Your task to perform on an android device: Add usb-a to usb-b to the cart on newegg, then select checkout. Image 0: 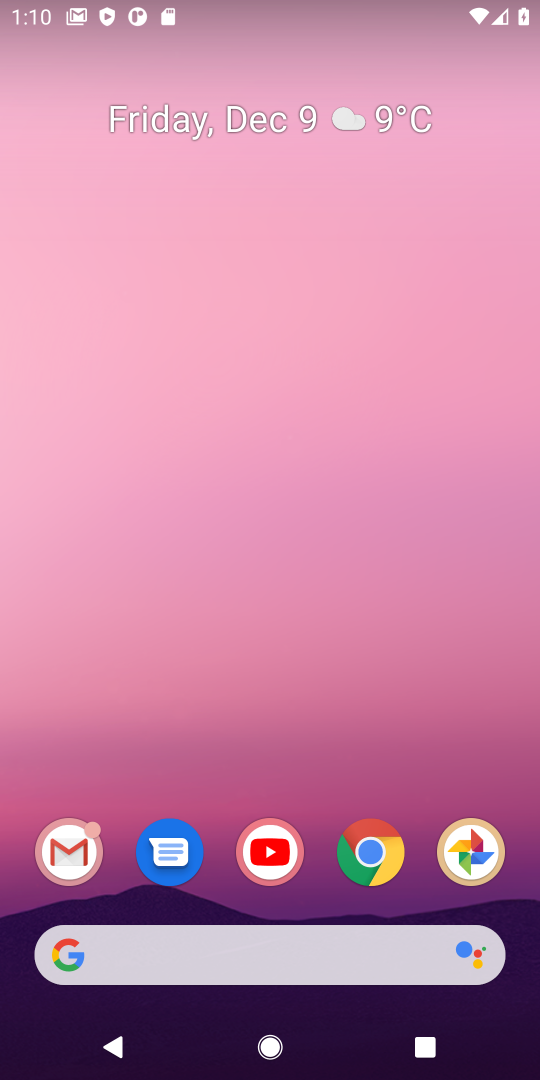
Step 0: click (364, 856)
Your task to perform on an android device: Add usb-a to usb-b to the cart on newegg, then select checkout. Image 1: 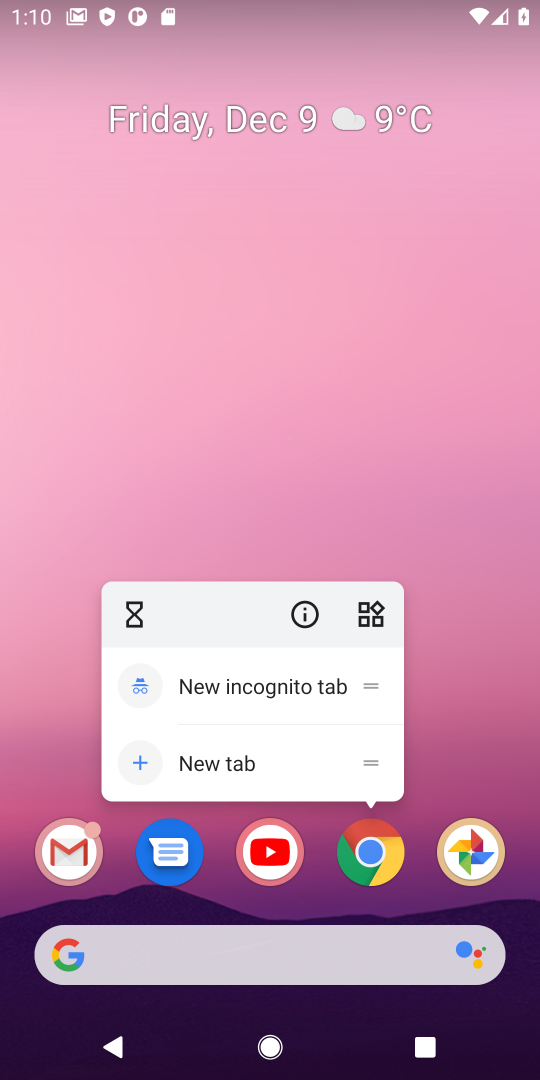
Step 1: click (361, 870)
Your task to perform on an android device: Add usb-a to usb-b to the cart on newegg, then select checkout. Image 2: 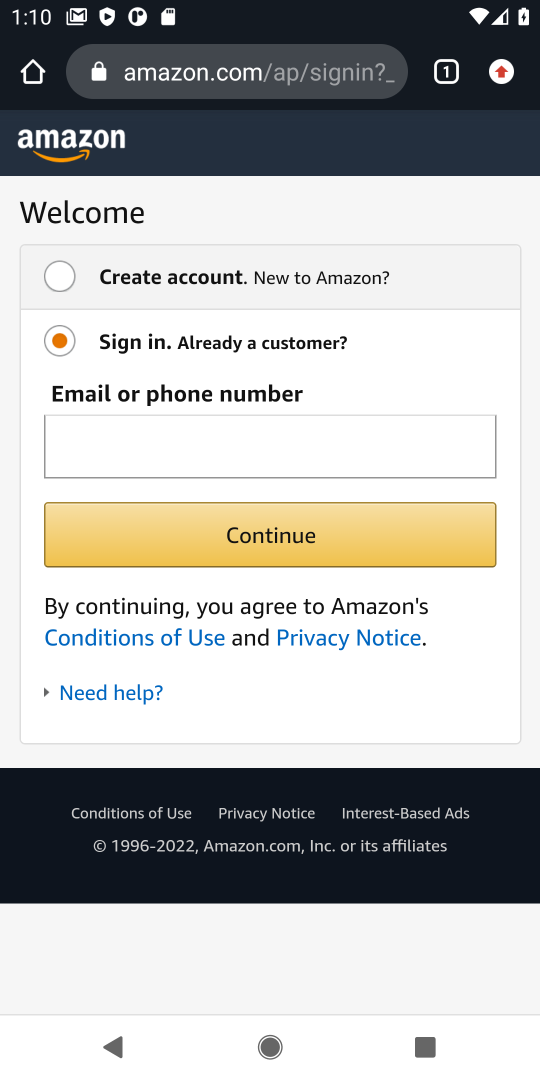
Step 2: click (164, 54)
Your task to perform on an android device: Add usb-a to usb-b to the cart on newegg, then select checkout. Image 3: 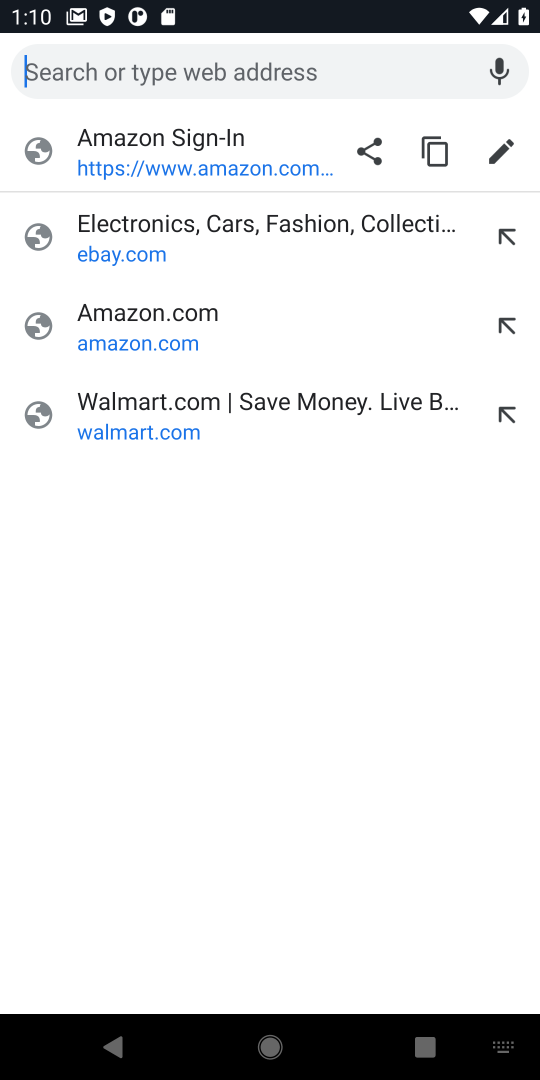
Step 3: type "newegg"
Your task to perform on an android device: Add usb-a to usb-b to the cart on newegg, then select checkout. Image 4: 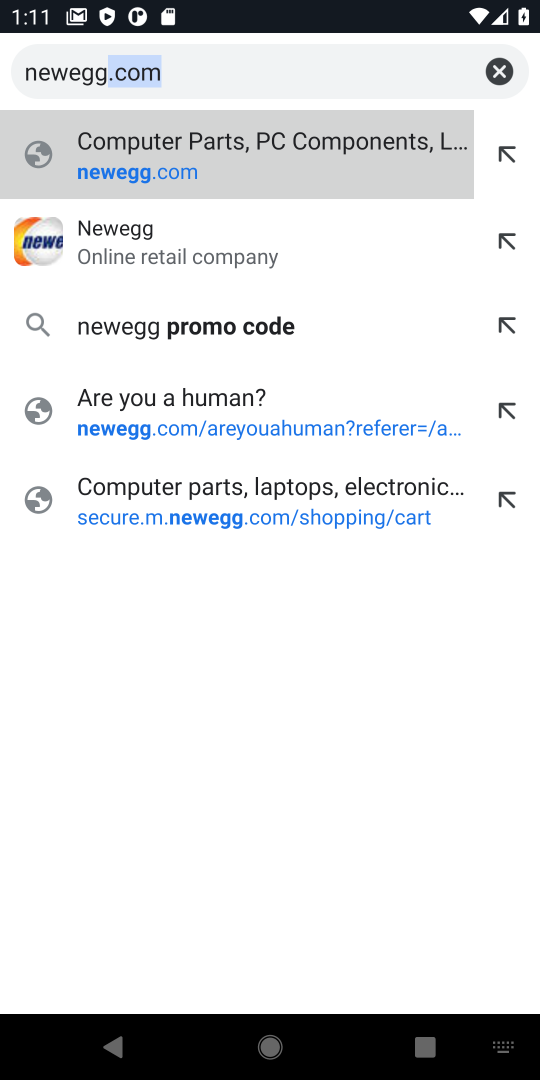
Step 4: click (303, 168)
Your task to perform on an android device: Add usb-a to usb-b to the cart on newegg, then select checkout. Image 5: 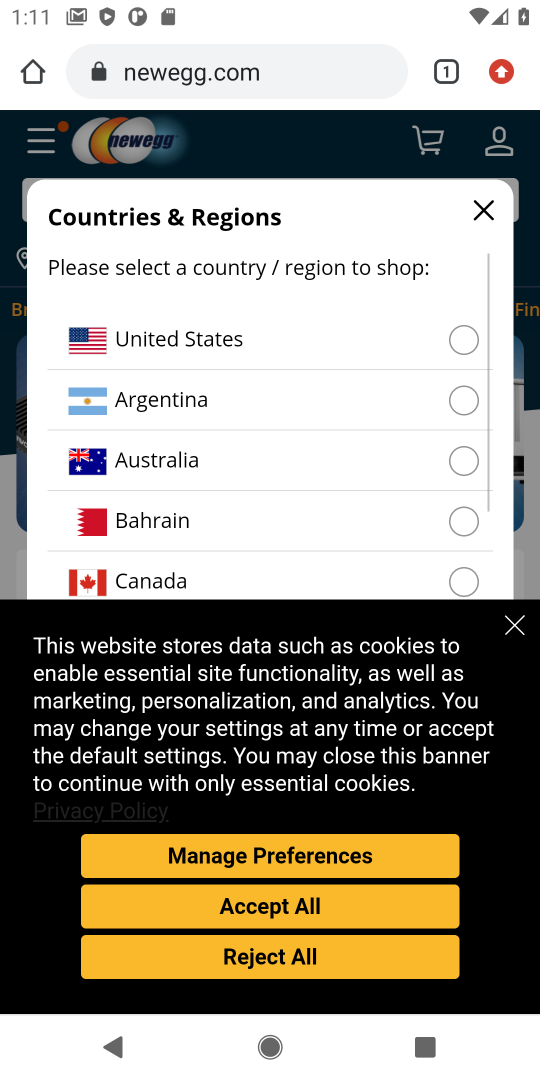
Step 5: click (464, 344)
Your task to perform on an android device: Add usb-a to usb-b to the cart on newegg, then select checkout. Image 6: 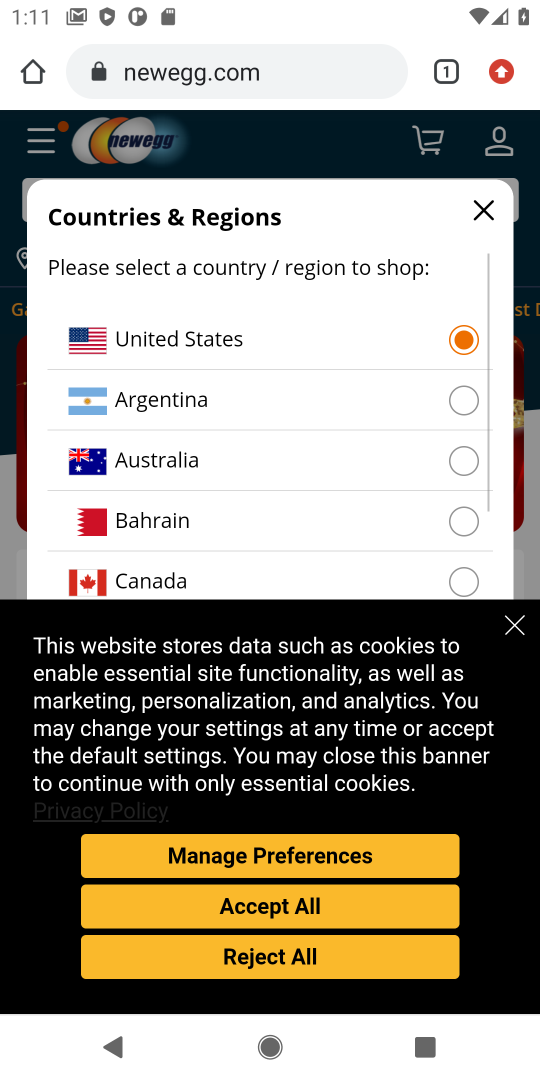
Step 6: click (275, 918)
Your task to perform on an android device: Add usb-a to usb-b to the cart on newegg, then select checkout. Image 7: 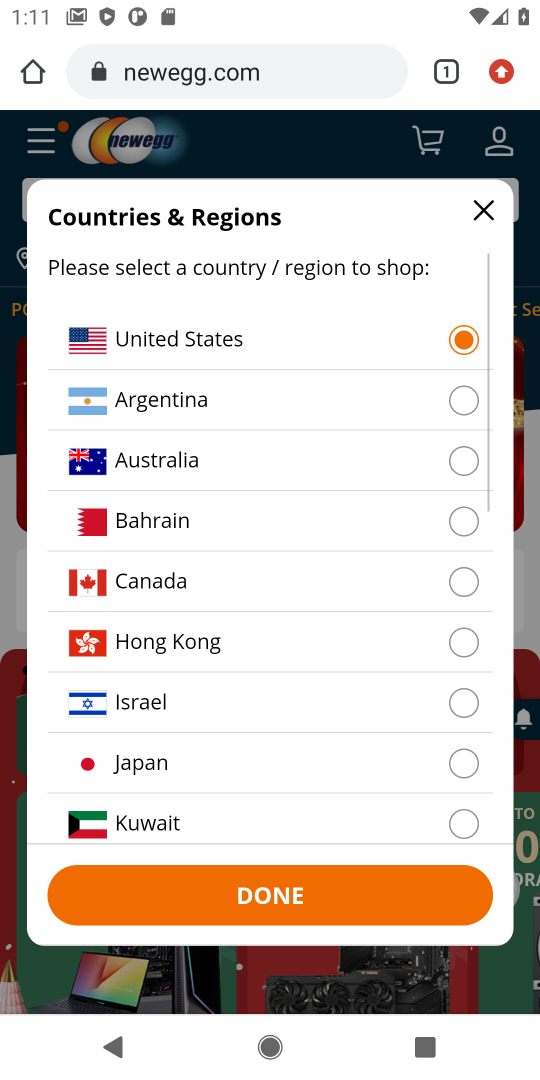
Step 7: click (262, 907)
Your task to perform on an android device: Add usb-a to usb-b to the cart on newegg, then select checkout. Image 8: 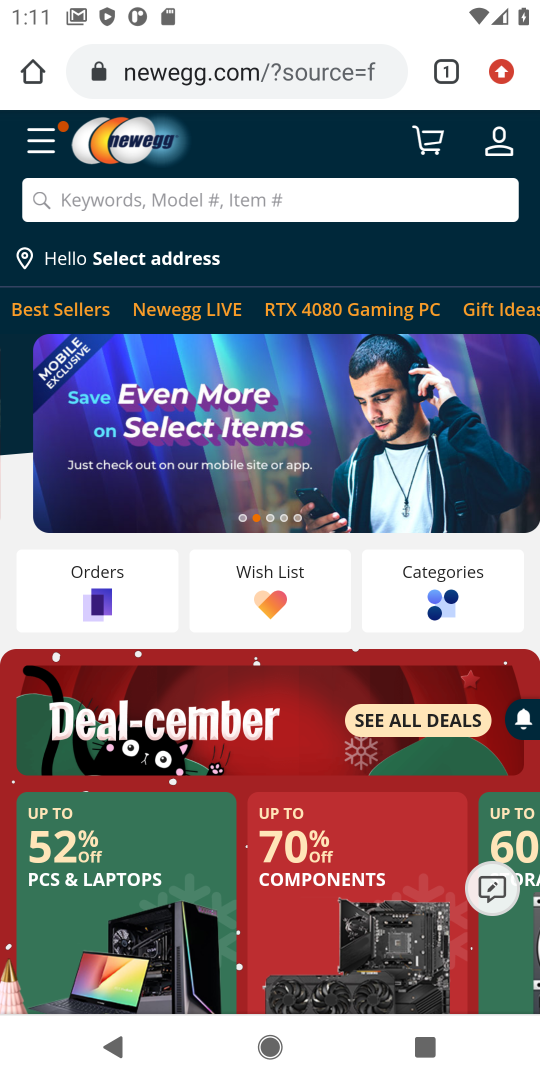
Step 8: click (192, 179)
Your task to perform on an android device: Add usb-a to usb-b to the cart on newegg, then select checkout. Image 9: 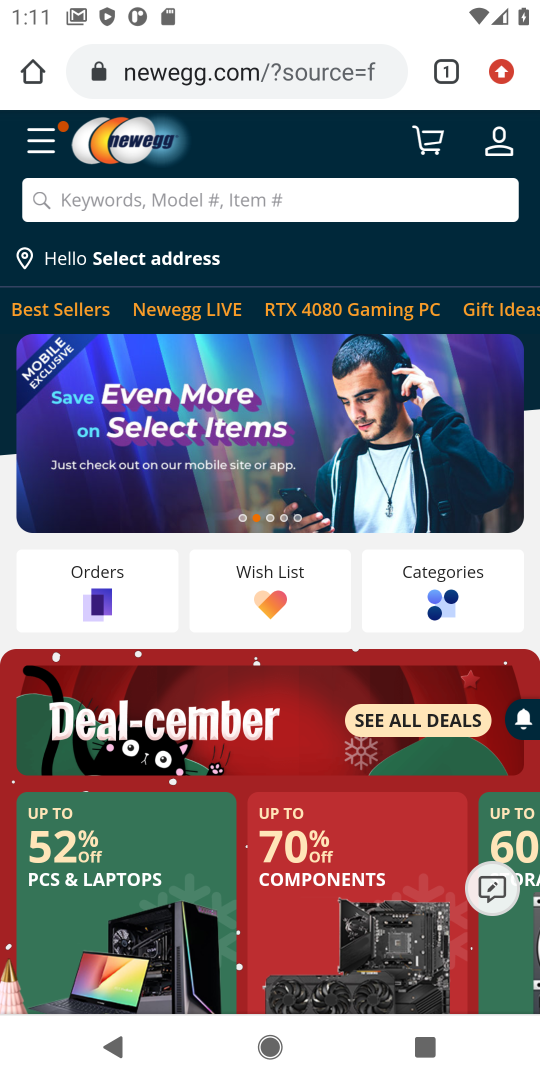
Step 9: click (192, 203)
Your task to perform on an android device: Add usb-a to usb-b to the cart on newegg, then select checkout. Image 10: 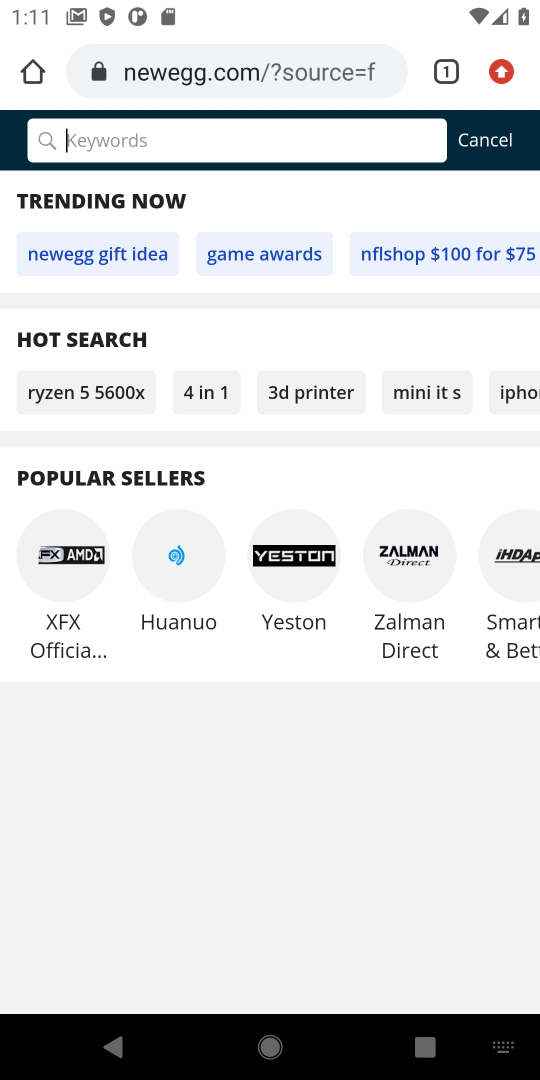
Step 10: click (201, 148)
Your task to perform on an android device: Add usb-a to usb-b to the cart on newegg, then select checkout. Image 11: 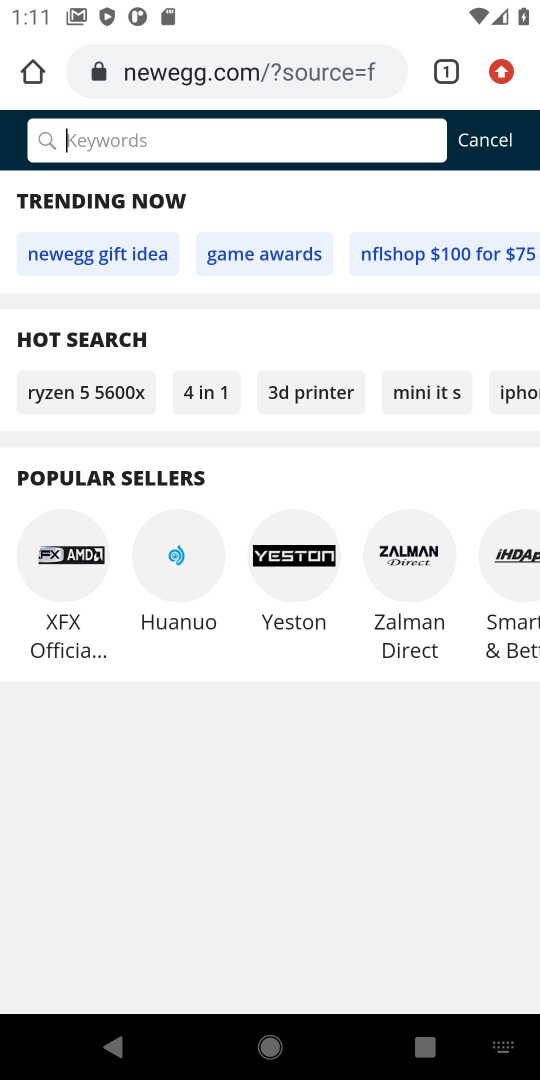
Step 11: type "usb-a to usb-b"
Your task to perform on an android device: Add usb-a to usb-b to the cart on newegg, then select checkout. Image 12: 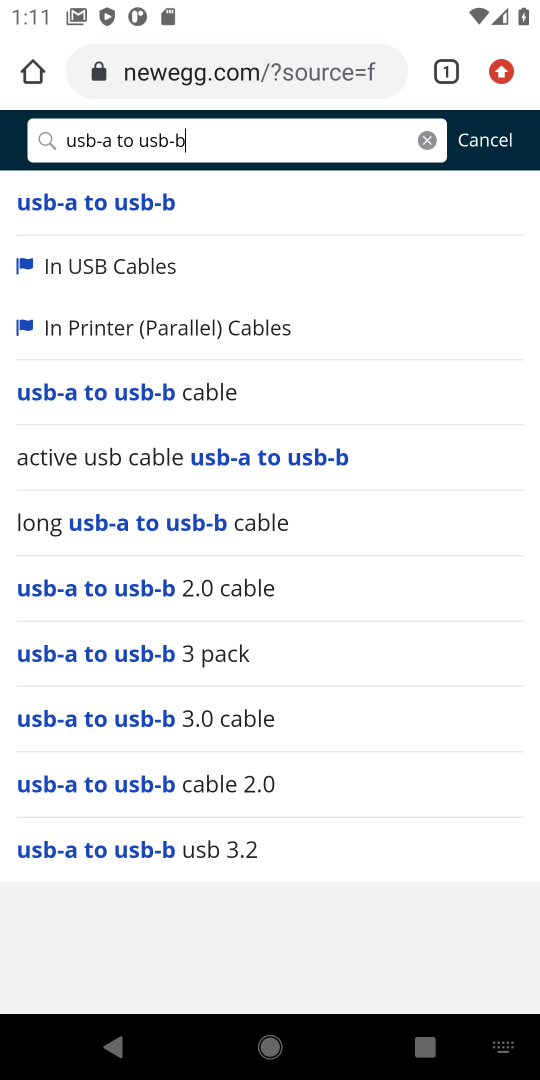
Step 12: press enter
Your task to perform on an android device: Add usb-a to usb-b to the cart on newegg, then select checkout. Image 13: 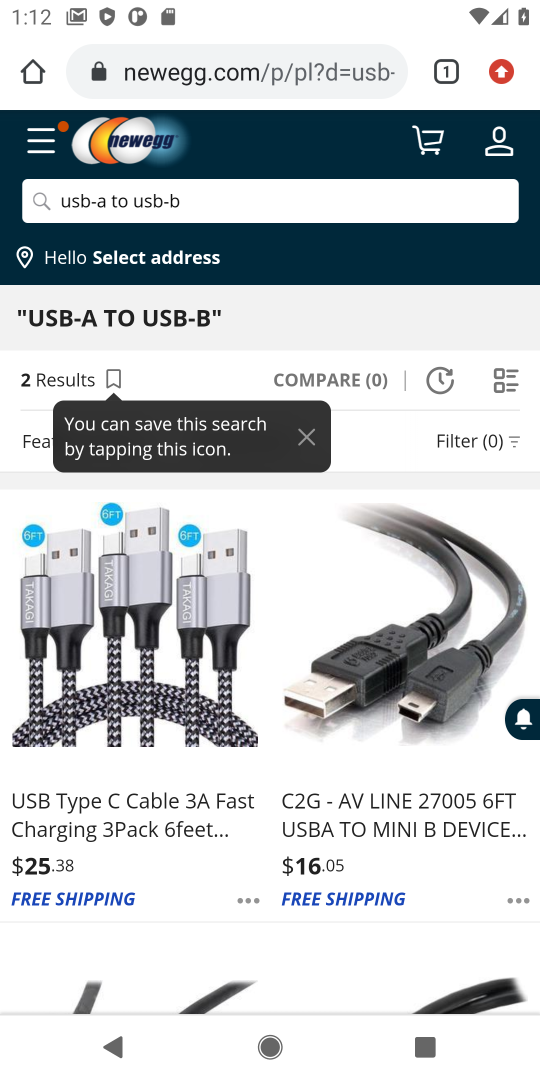
Step 13: click (123, 709)
Your task to perform on an android device: Add usb-a to usb-b to the cart on newegg, then select checkout. Image 14: 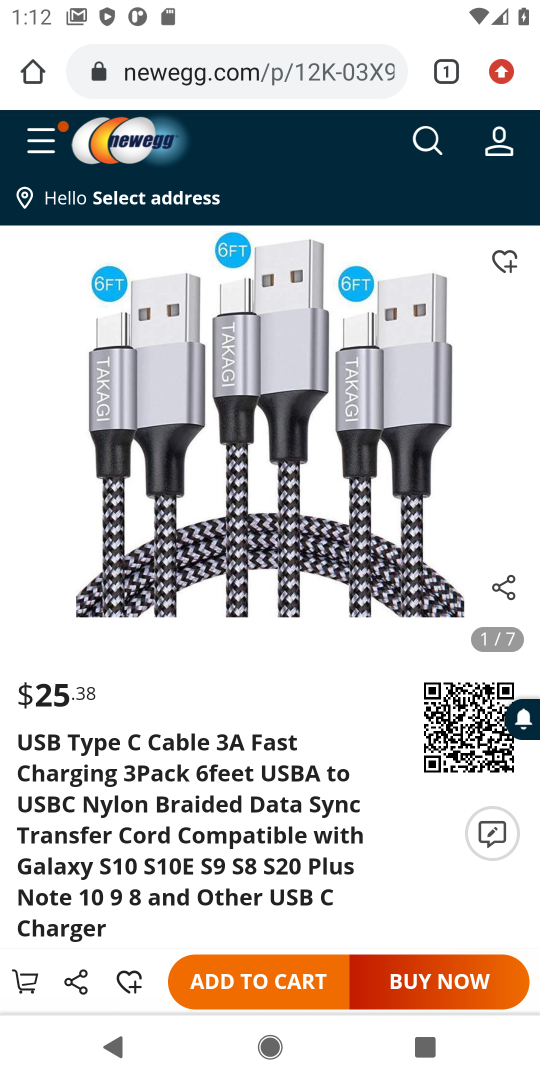
Step 14: click (260, 986)
Your task to perform on an android device: Add usb-a to usb-b to the cart on newegg, then select checkout. Image 15: 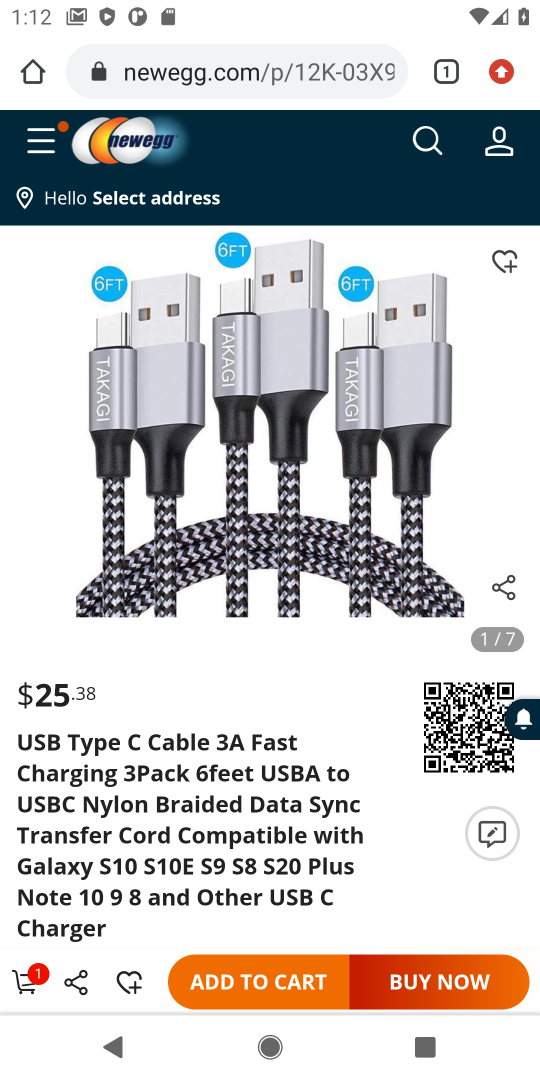
Step 15: click (24, 986)
Your task to perform on an android device: Add usb-a to usb-b to the cart on newegg, then select checkout. Image 16: 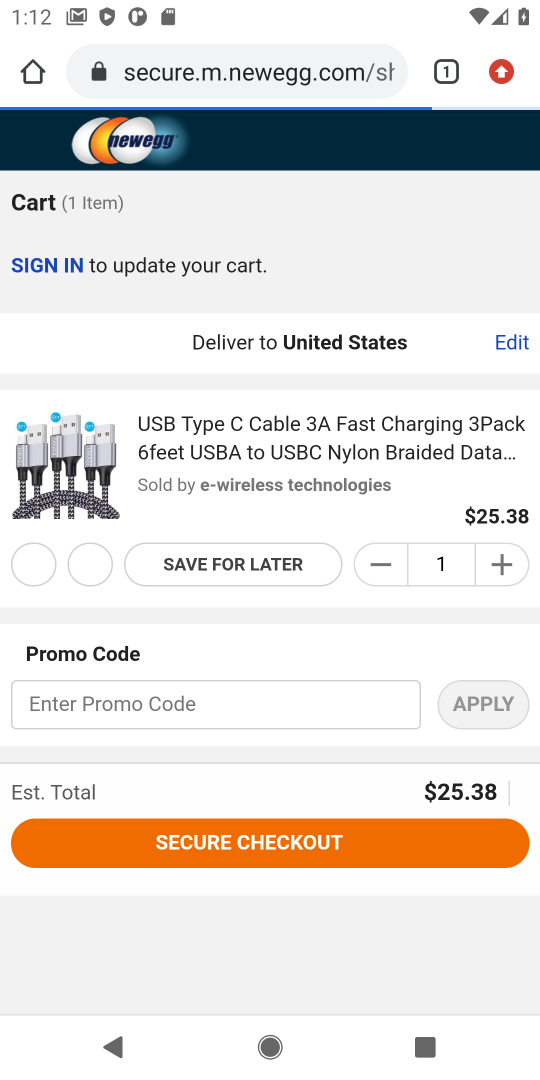
Step 16: click (224, 788)
Your task to perform on an android device: Add usb-a to usb-b to the cart on newegg, then select checkout. Image 17: 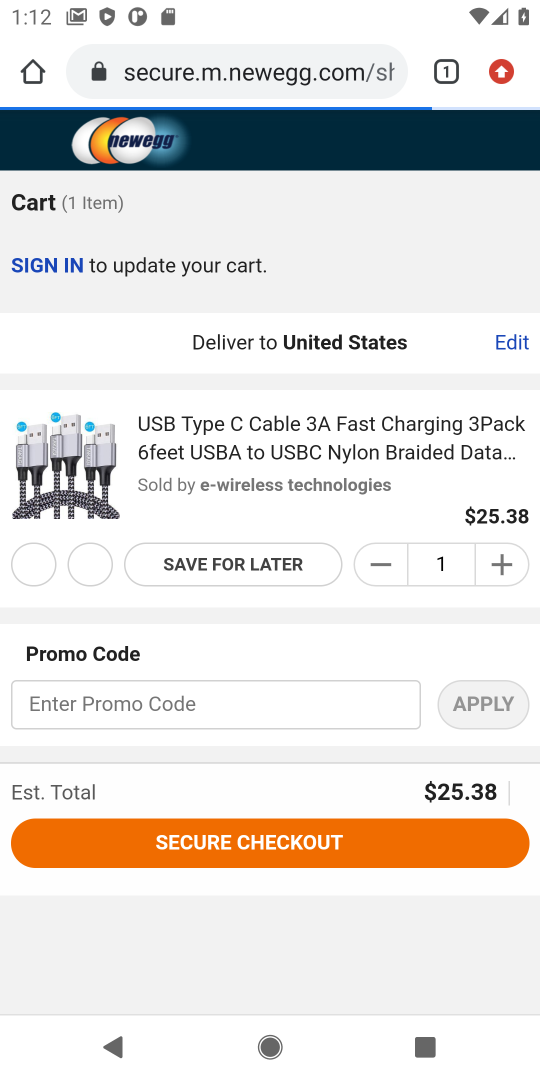
Step 17: click (211, 834)
Your task to perform on an android device: Add usb-a to usb-b to the cart on newegg, then select checkout. Image 18: 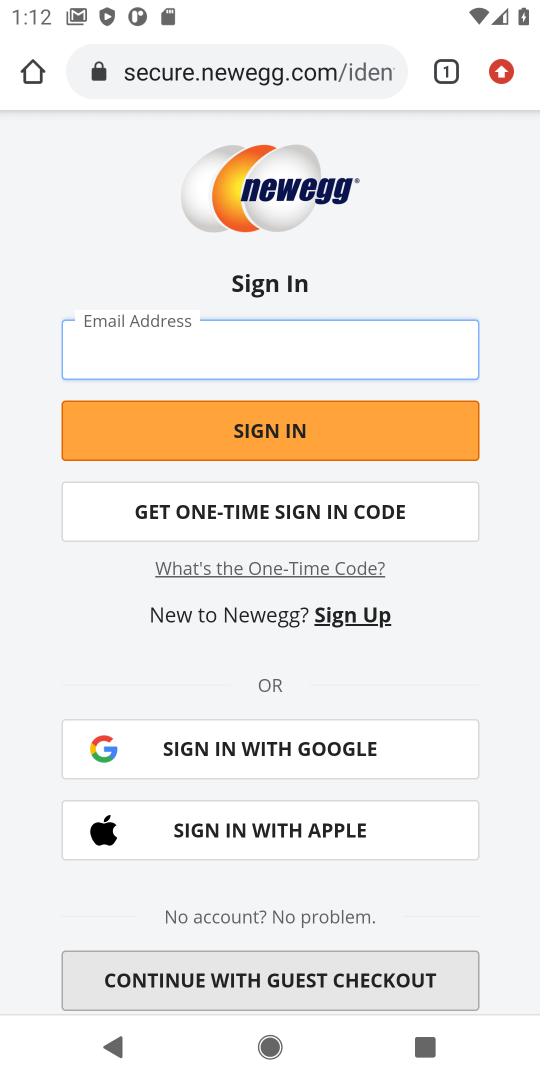
Step 18: task complete